Your task to perform on an android device: delete location history Image 0: 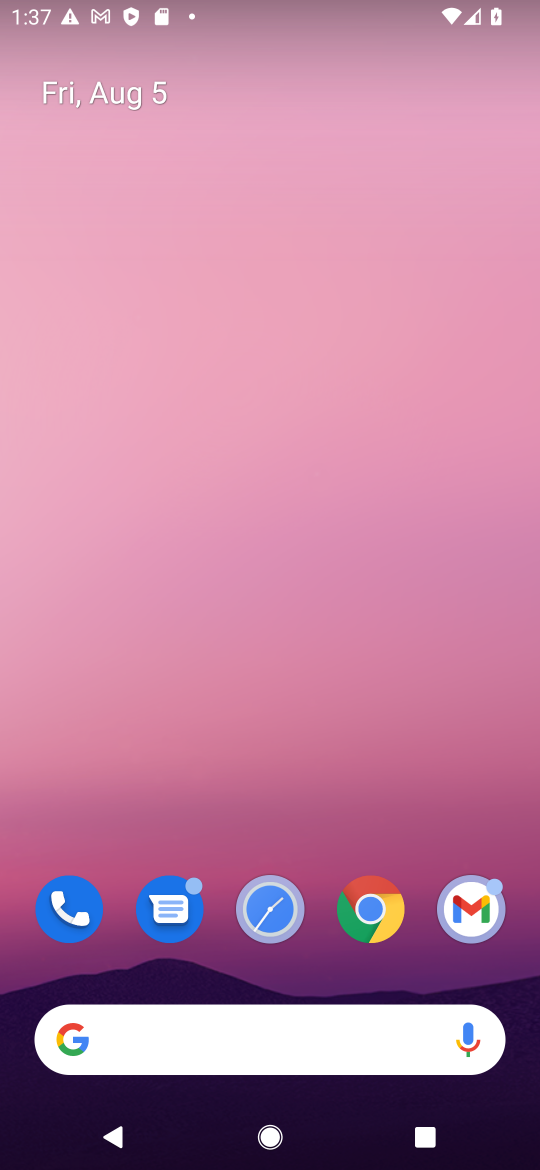
Step 0: drag from (302, 828) to (238, 95)
Your task to perform on an android device: delete location history Image 1: 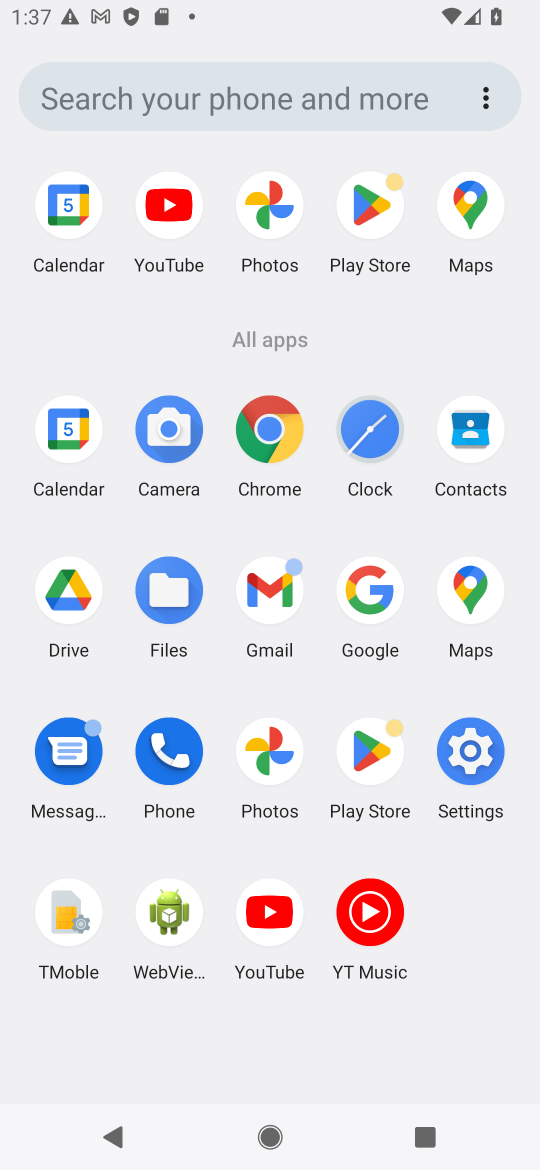
Step 1: click (471, 602)
Your task to perform on an android device: delete location history Image 2: 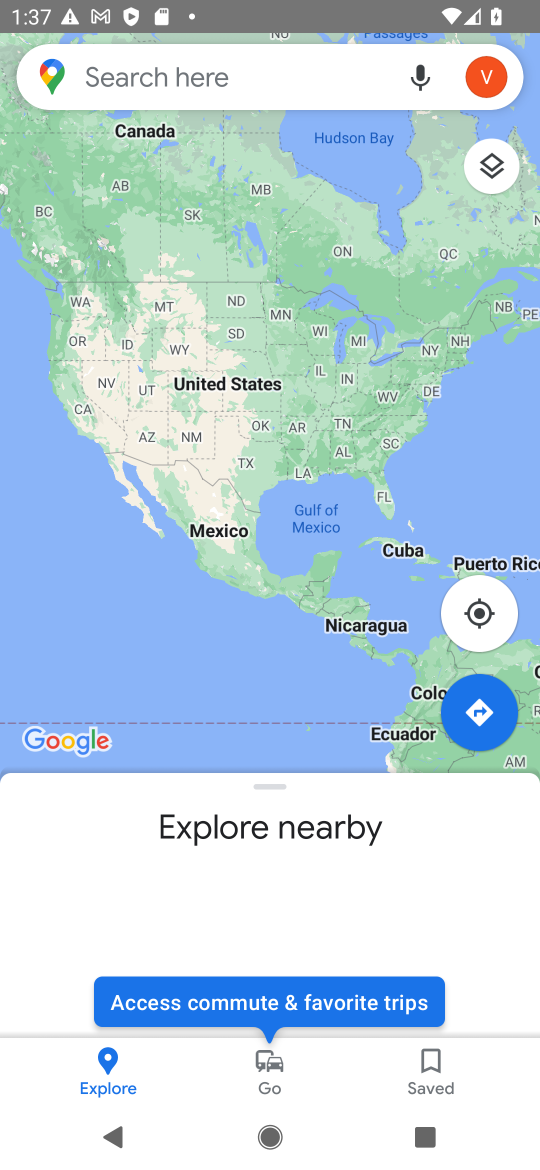
Step 2: click (493, 72)
Your task to perform on an android device: delete location history Image 3: 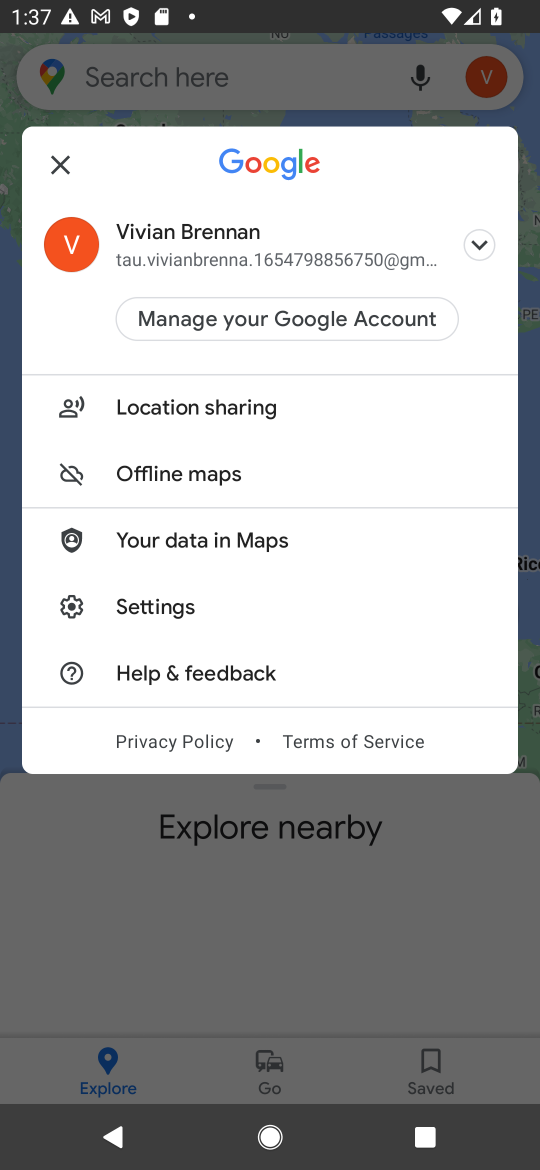
Step 3: click (152, 606)
Your task to perform on an android device: delete location history Image 4: 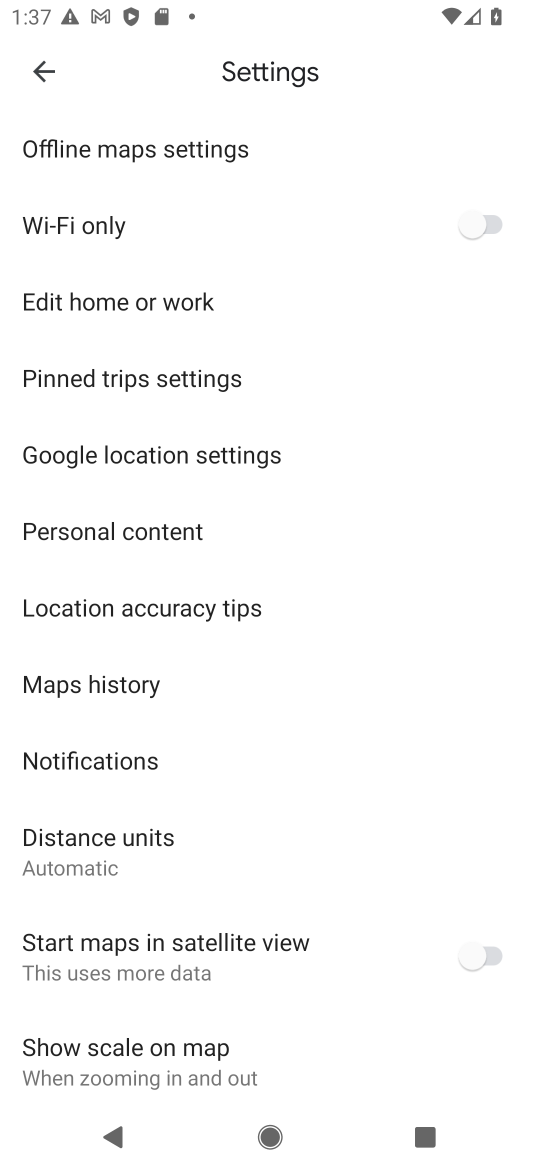
Step 4: click (99, 679)
Your task to perform on an android device: delete location history Image 5: 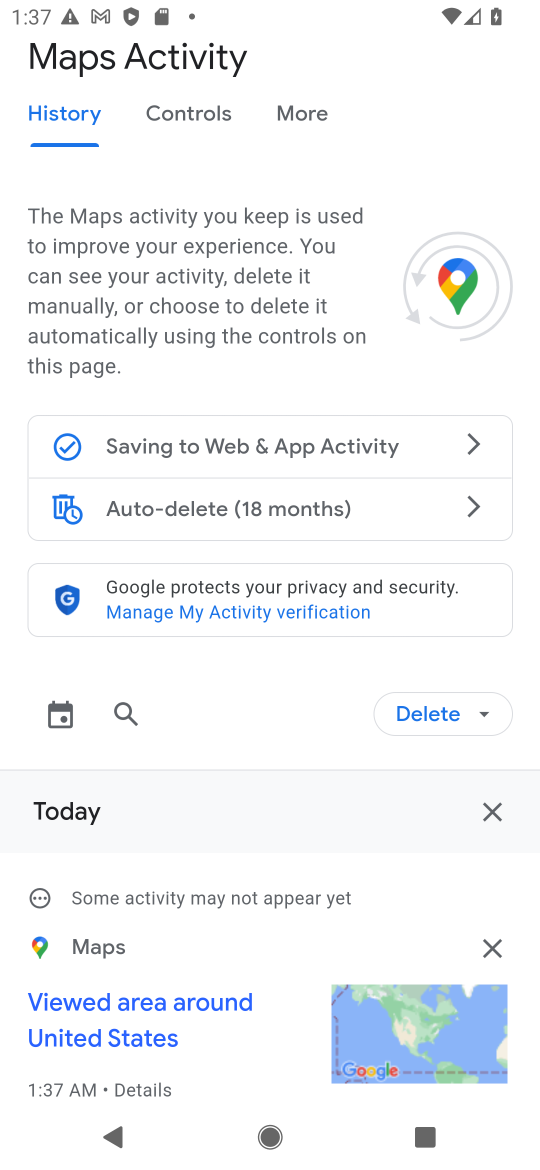
Step 5: click (468, 711)
Your task to perform on an android device: delete location history Image 6: 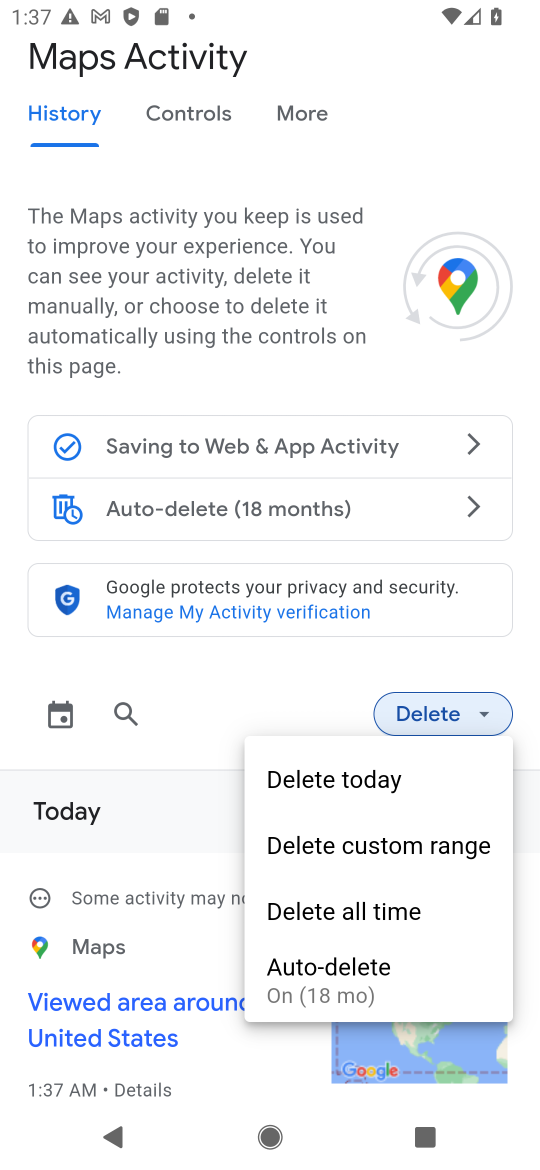
Step 6: click (340, 904)
Your task to perform on an android device: delete location history Image 7: 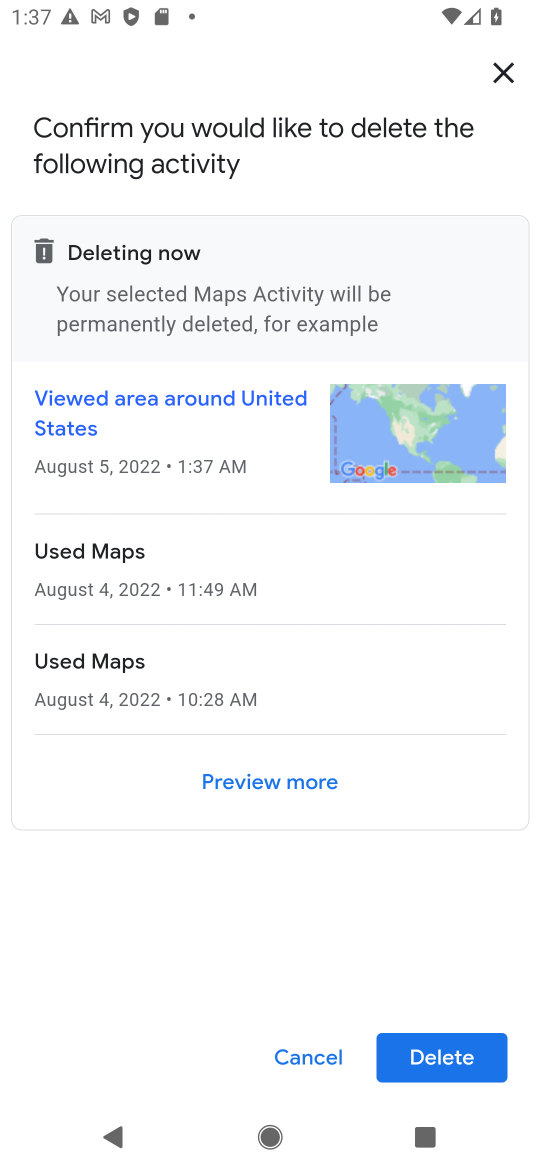
Step 7: click (420, 1055)
Your task to perform on an android device: delete location history Image 8: 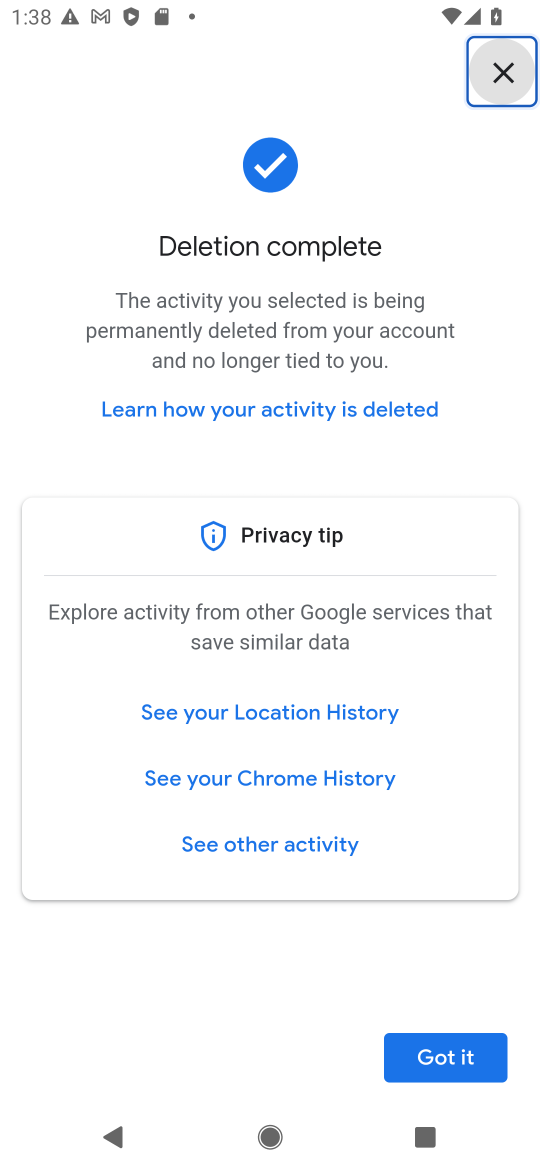
Step 8: click (443, 1053)
Your task to perform on an android device: delete location history Image 9: 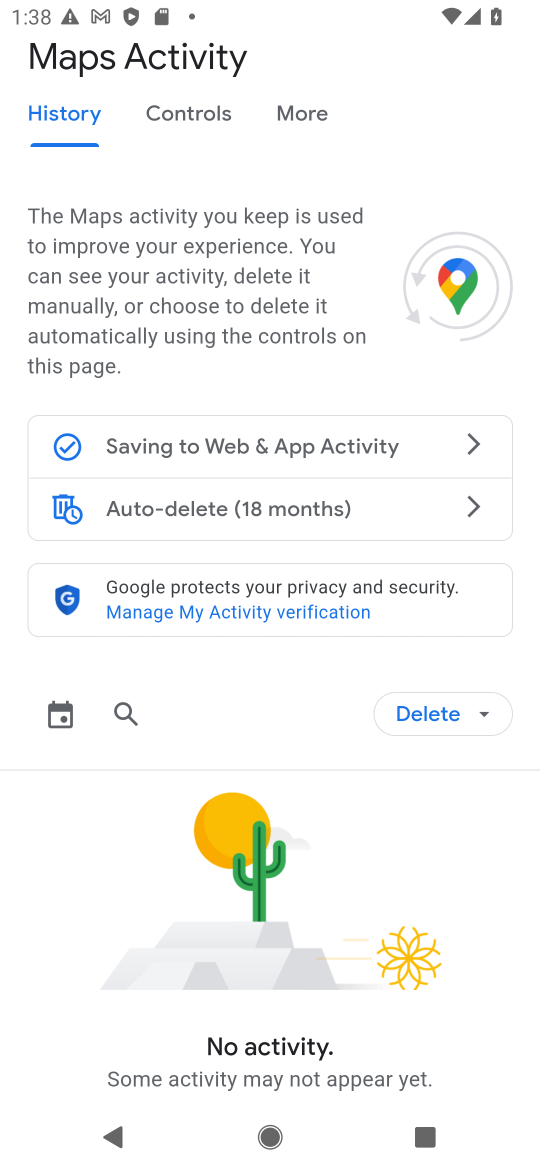
Step 9: task complete